Your task to perform on an android device: What is the recent news? Image 0: 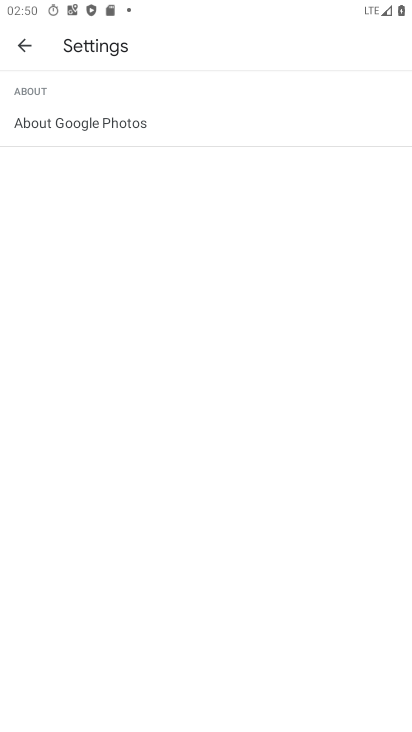
Step 0: press home button
Your task to perform on an android device: What is the recent news? Image 1: 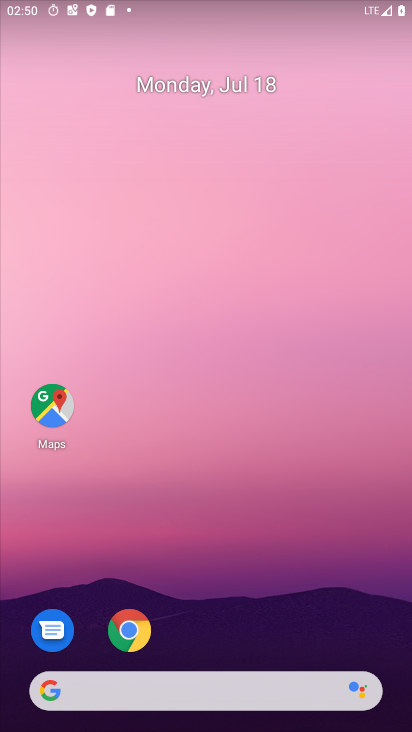
Step 1: drag from (169, 650) to (245, 200)
Your task to perform on an android device: What is the recent news? Image 2: 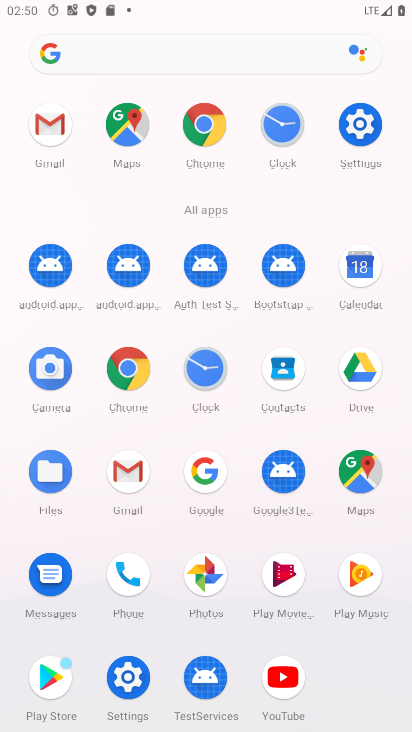
Step 2: click (205, 476)
Your task to perform on an android device: What is the recent news? Image 3: 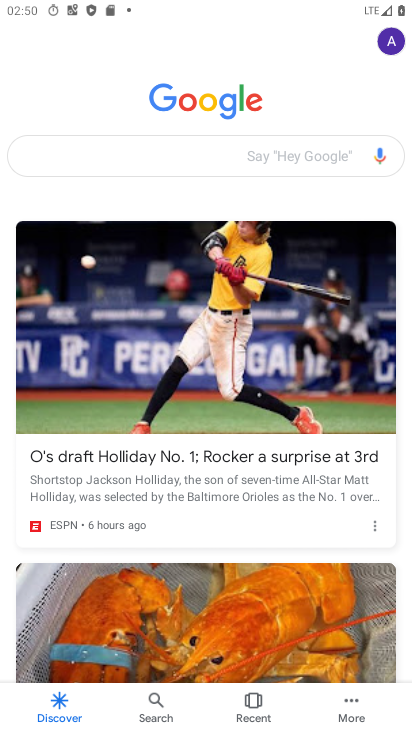
Step 3: task complete